Your task to perform on an android device: change the clock display to digital Image 0: 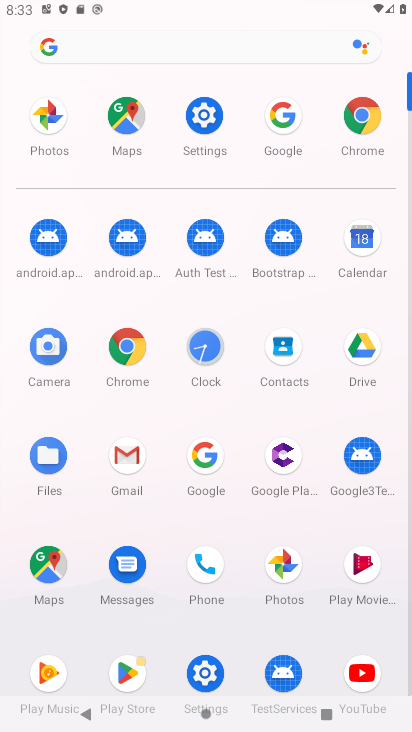
Step 0: click (209, 346)
Your task to perform on an android device: change the clock display to digital Image 1: 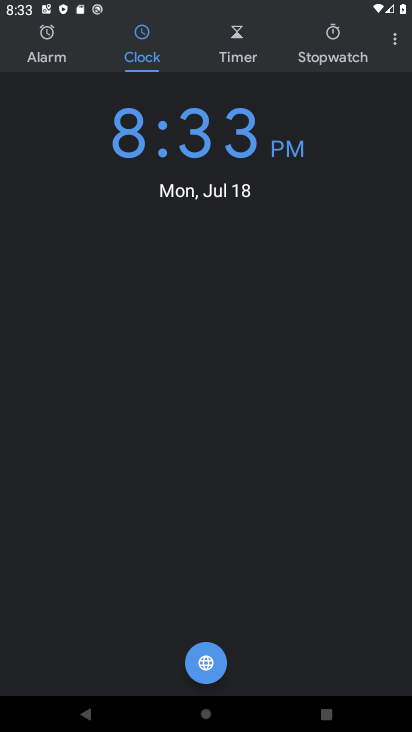
Step 1: click (396, 47)
Your task to perform on an android device: change the clock display to digital Image 2: 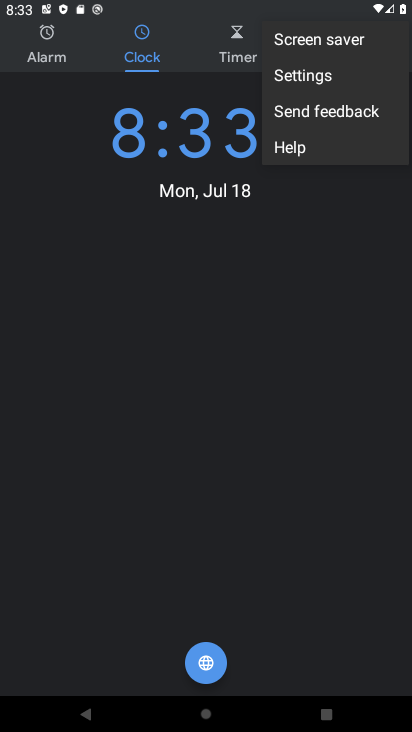
Step 2: click (310, 76)
Your task to perform on an android device: change the clock display to digital Image 3: 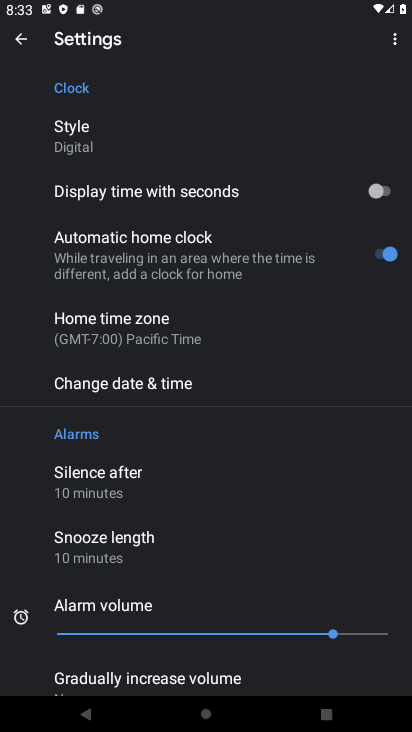
Step 3: drag from (151, 585) to (135, 279)
Your task to perform on an android device: change the clock display to digital Image 4: 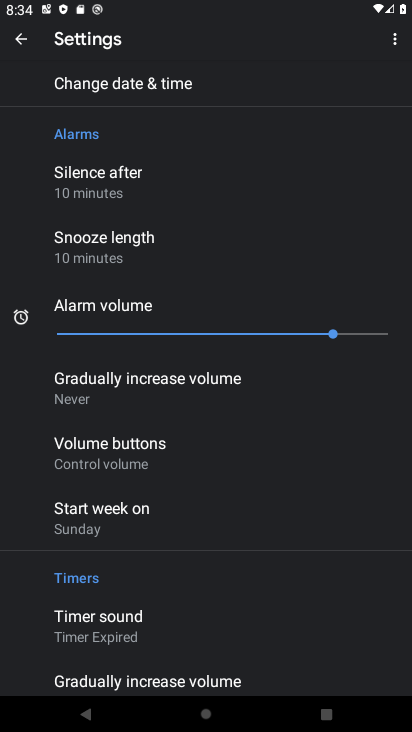
Step 4: drag from (194, 209) to (177, 469)
Your task to perform on an android device: change the clock display to digital Image 5: 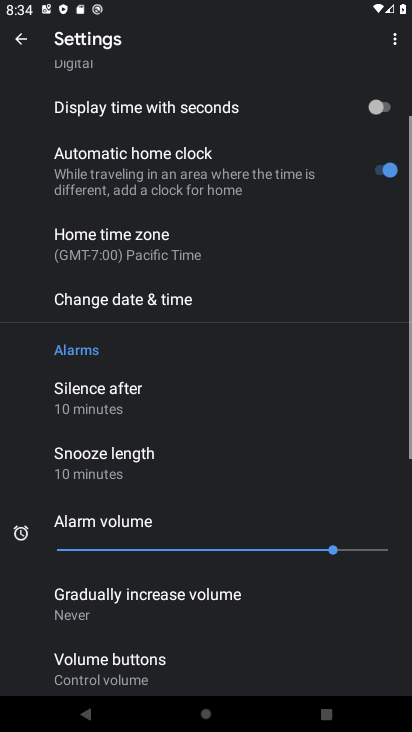
Step 5: click (180, 600)
Your task to perform on an android device: change the clock display to digital Image 6: 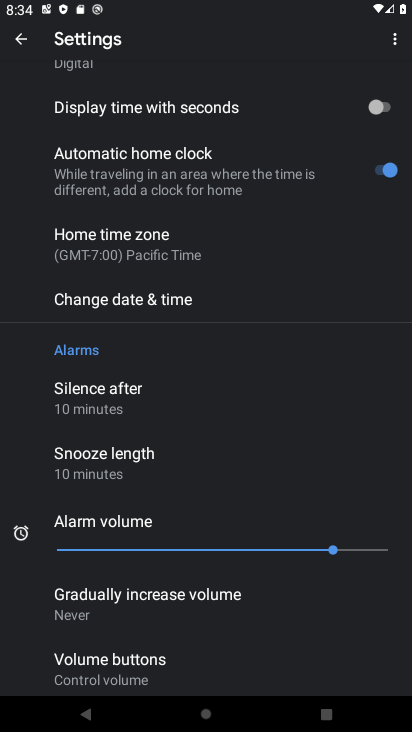
Step 6: task complete